Your task to perform on an android device: Open display settings Image 0: 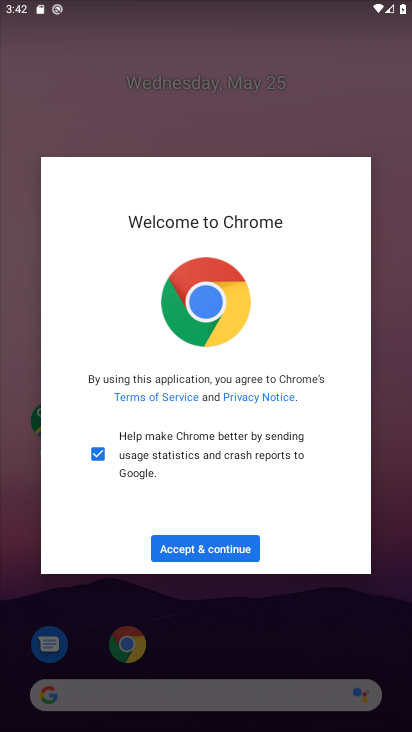
Step 0: press back button
Your task to perform on an android device: Open display settings Image 1: 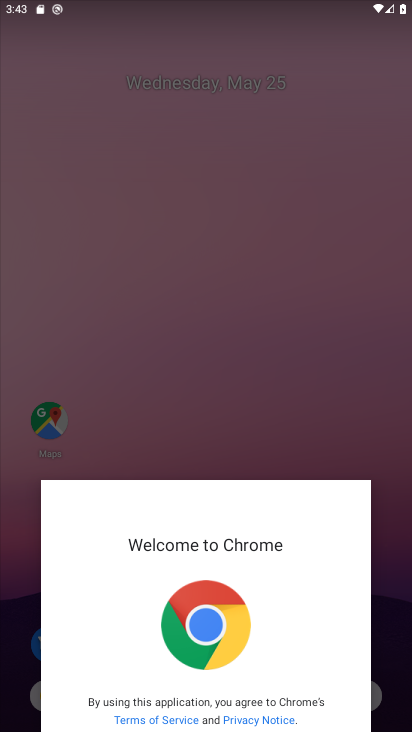
Step 1: press home button
Your task to perform on an android device: Open display settings Image 2: 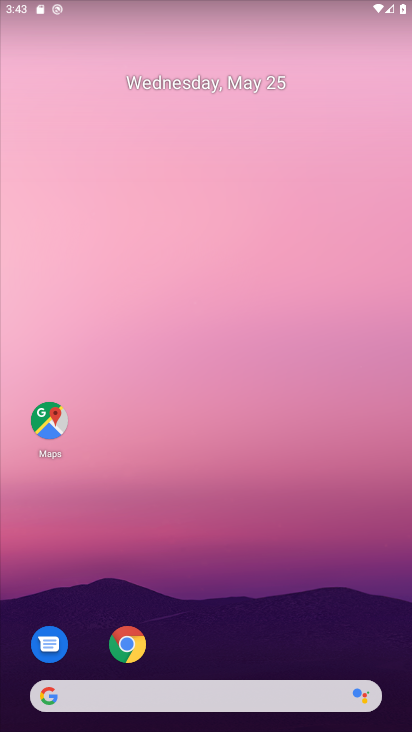
Step 2: drag from (167, 673) to (302, 74)
Your task to perform on an android device: Open display settings Image 3: 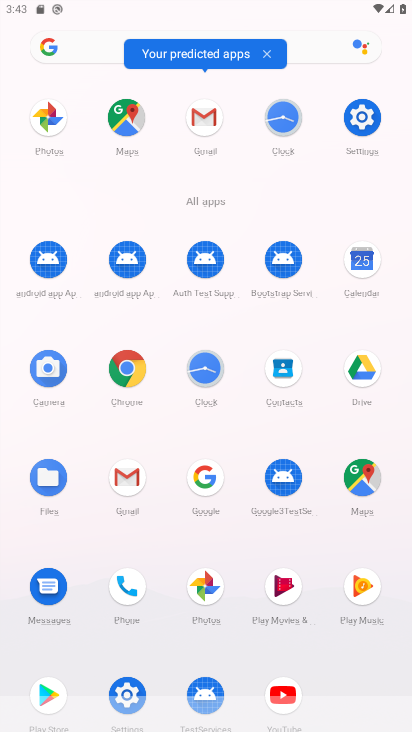
Step 3: click (129, 692)
Your task to perform on an android device: Open display settings Image 4: 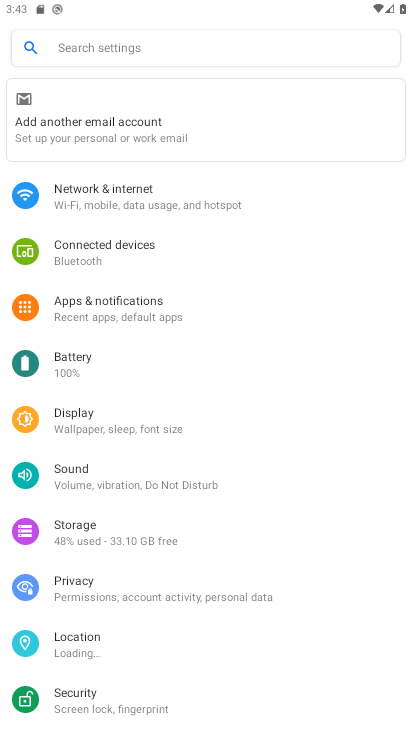
Step 4: click (91, 429)
Your task to perform on an android device: Open display settings Image 5: 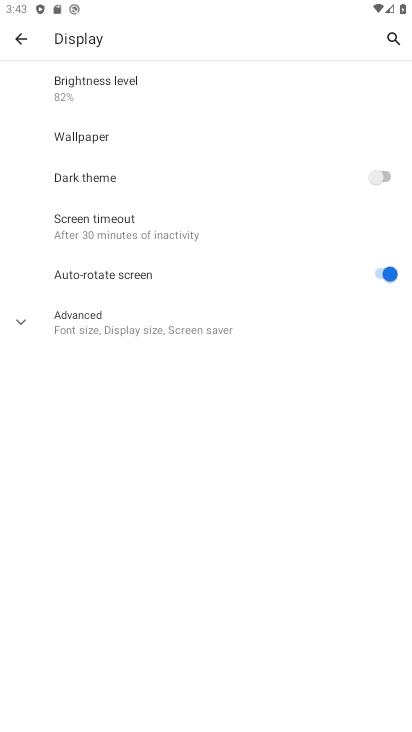
Step 5: click (142, 333)
Your task to perform on an android device: Open display settings Image 6: 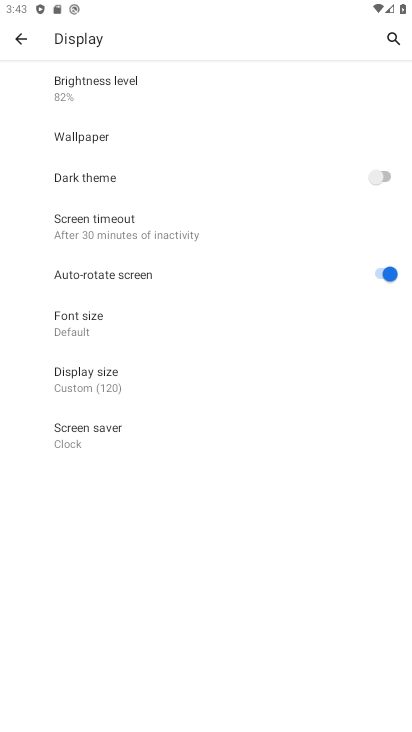
Step 6: task complete